Your task to perform on an android device: toggle location history Image 0: 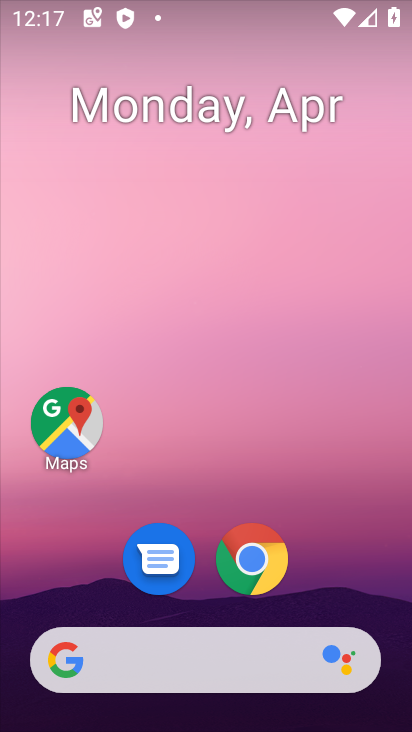
Step 0: drag from (223, 611) to (270, 259)
Your task to perform on an android device: toggle location history Image 1: 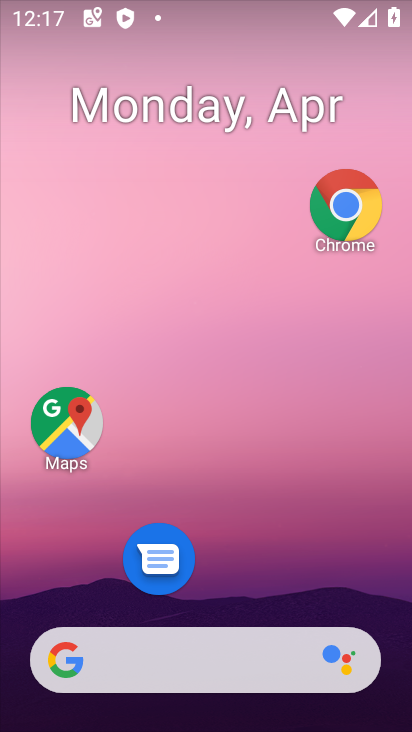
Step 1: drag from (267, 590) to (232, 197)
Your task to perform on an android device: toggle location history Image 2: 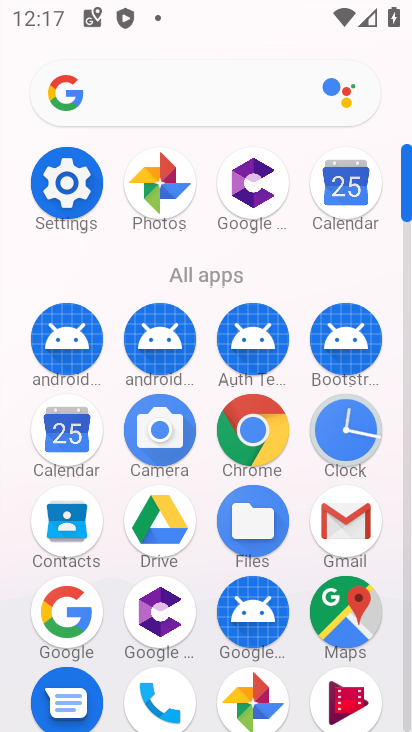
Step 2: click (86, 201)
Your task to perform on an android device: toggle location history Image 3: 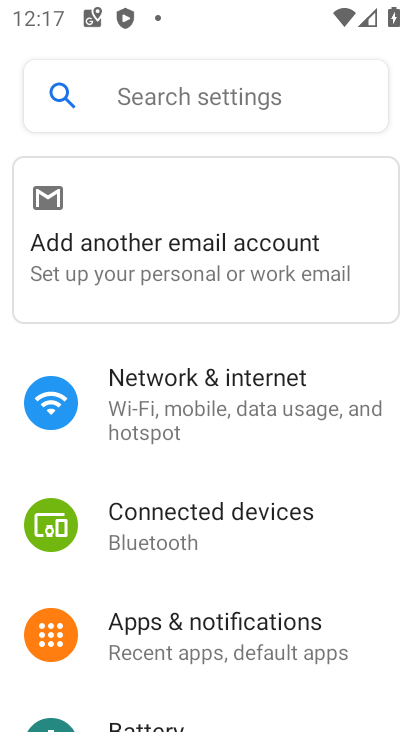
Step 3: drag from (234, 560) to (207, 255)
Your task to perform on an android device: toggle location history Image 4: 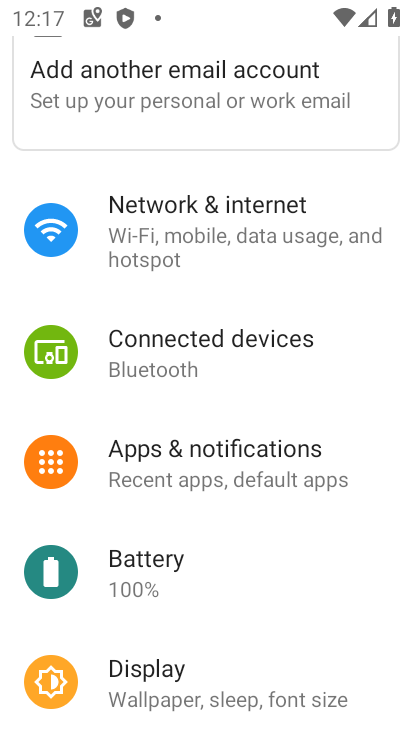
Step 4: drag from (173, 632) to (200, 281)
Your task to perform on an android device: toggle location history Image 5: 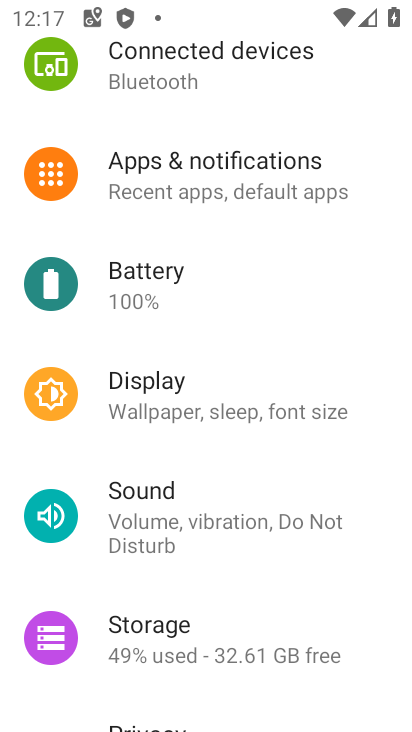
Step 5: drag from (197, 693) to (208, 302)
Your task to perform on an android device: toggle location history Image 6: 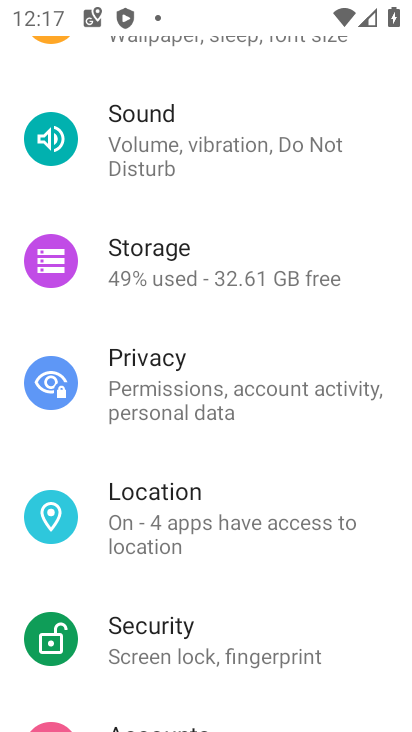
Step 6: click (200, 511)
Your task to perform on an android device: toggle location history Image 7: 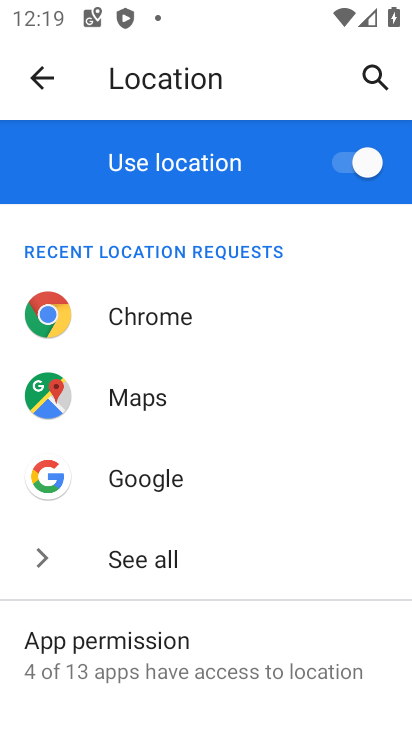
Step 7: drag from (182, 600) to (214, 239)
Your task to perform on an android device: toggle location history Image 8: 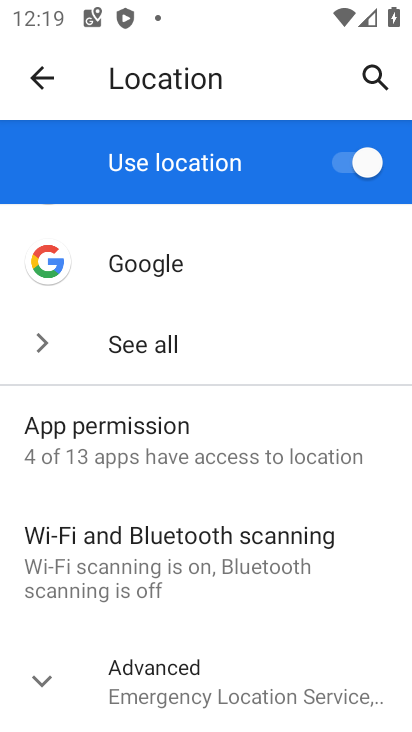
Step 8: click (172, 689)
Your task to perform on an android device: toggle location history Image 9: 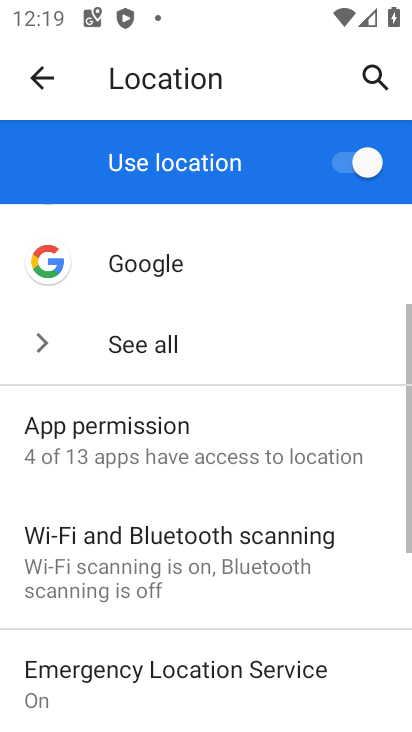
Step 9: drag from (172, 671) to (225, 246)
Your task to perform on an android device: toggle location history Image 10: 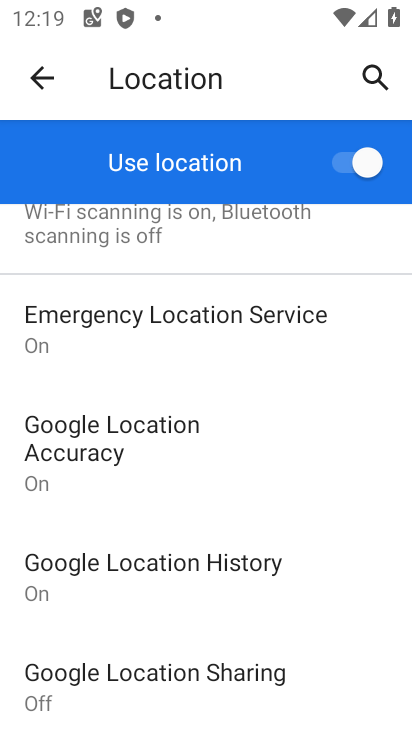
Step 10: click (261, 582)
Your task to perform on an android device: toggle location history Image 11: 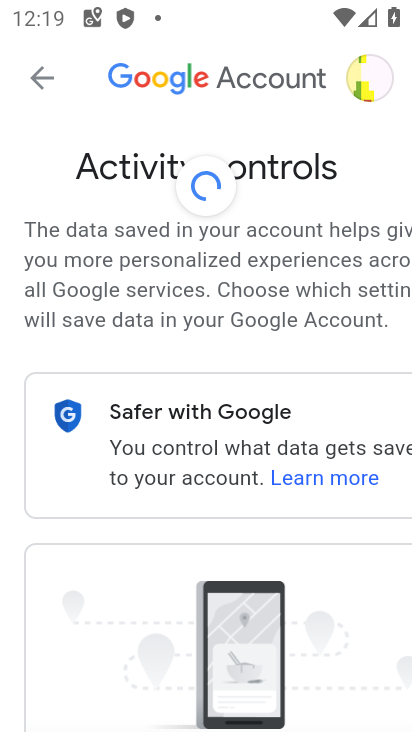
Step 11: drag from (288, 621) to (278, 240)
Your task to perform on an android device: toggle location history Image 12: 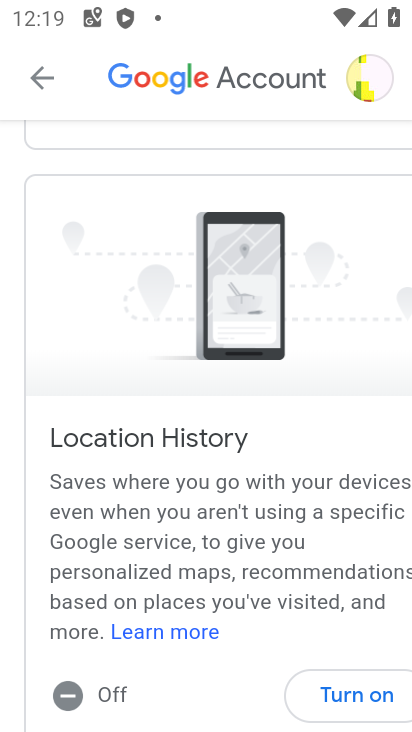
Step 12: click (330, 691)
Your task to perform on an android device: toggle location history Image 13: 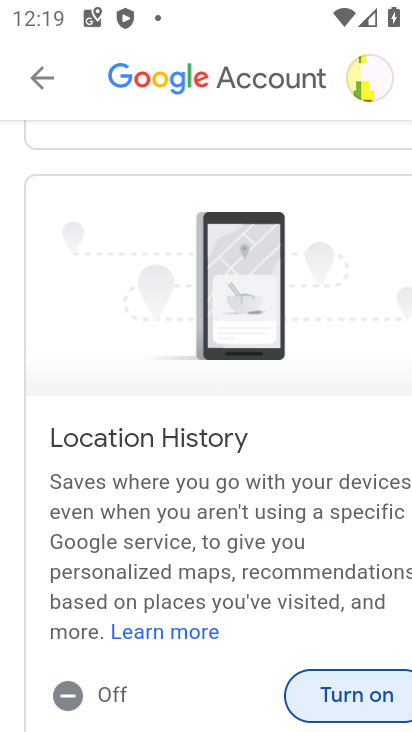
Step 13: click (330, 700)
Your task to perform on an android device: toggle location history Image 14: 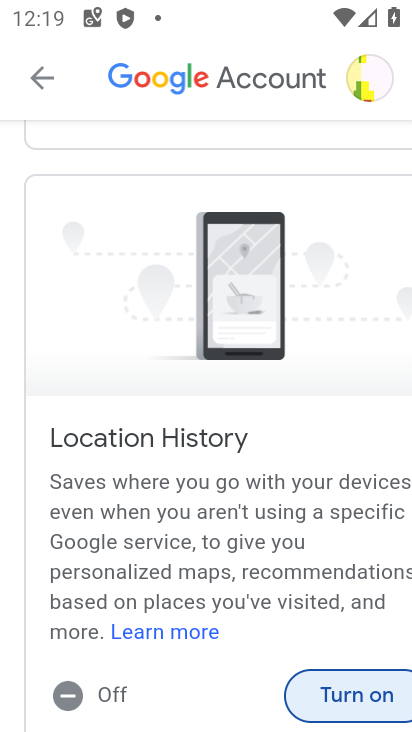
Step 14: drag from (302, 611) to (278, 365)
Your task to perform on an android device: toggle location history Image 15: 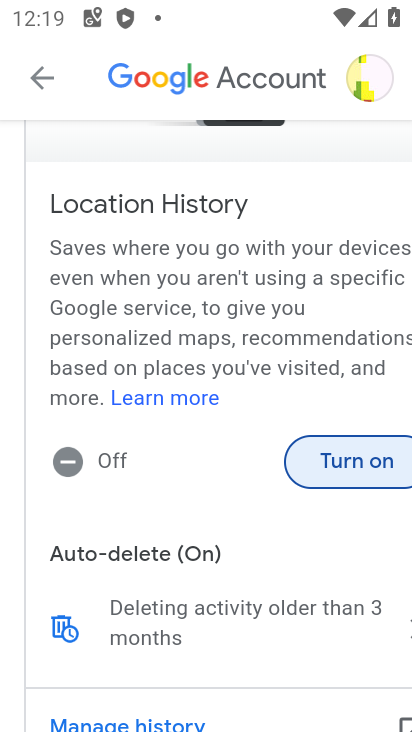
Step 15: click (354, 461)
Your task to perform on an android device: toggle location history Image 16: 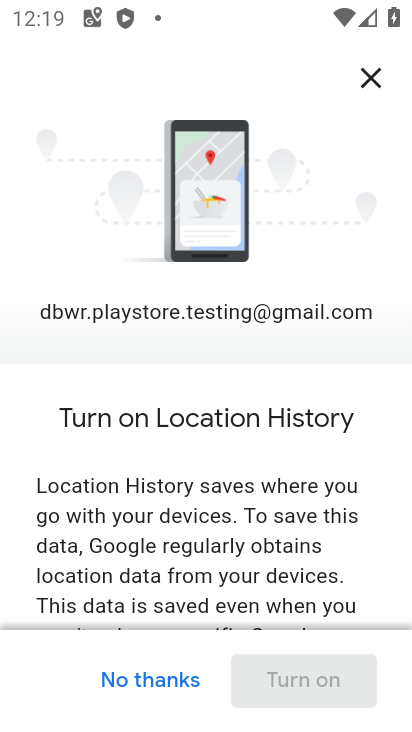
Step 16: drag from (315, 566) to (282, 86)
Your task to perform on an android device: toggle location history Image 17: 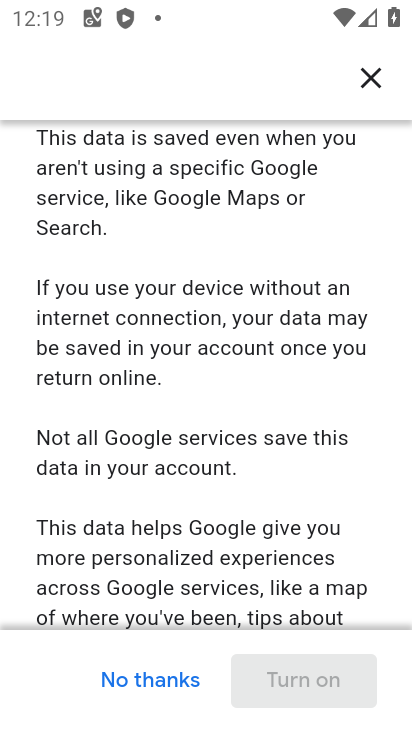
Step 17: drag from (226, 496) to (248, 86)
Your task to perform on an android device: toggle location history Image 18: 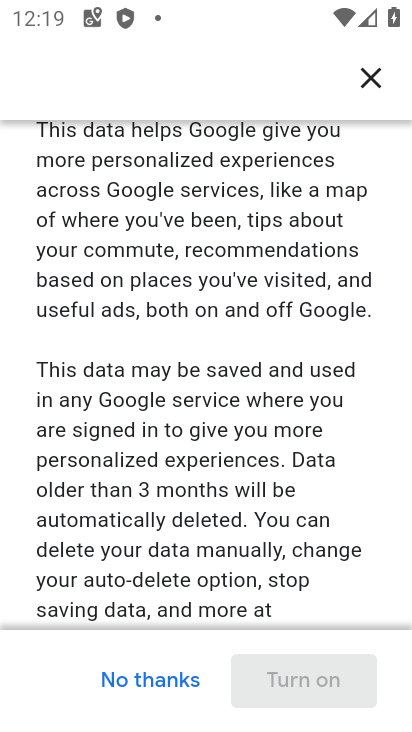
Step 18: drag from (276, 541) to (265, 69)
Your task to perform on an android device: toggle location history Image 19: 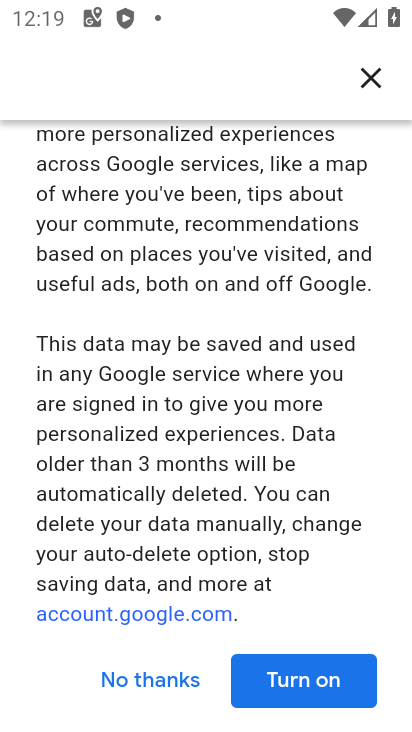
Step 19: click (283, 693)
Your task to perform on an android device: toggle location history Image 20: 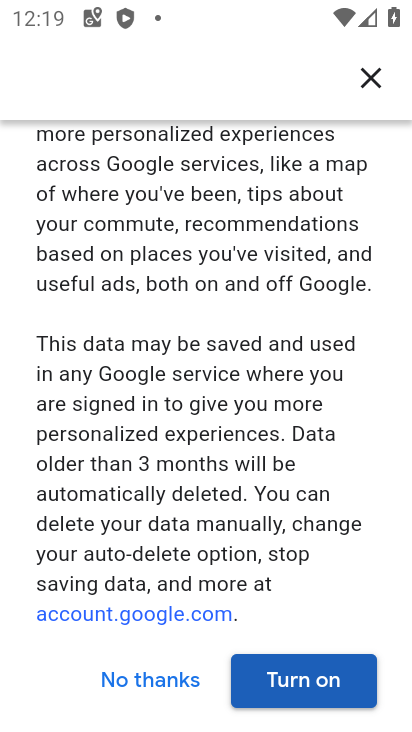
Step 20: click (334, 692)
Your task to perform on an android device: toggle location history Image 21: 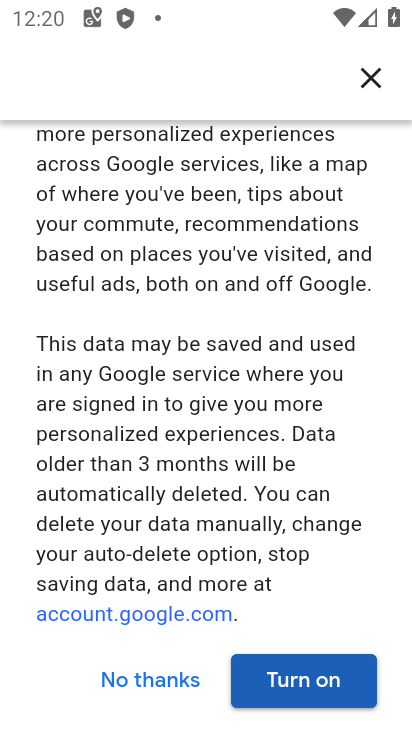
Step 21: click (302, 692)
Your task to perform on an android device: toggle location history Image 22: 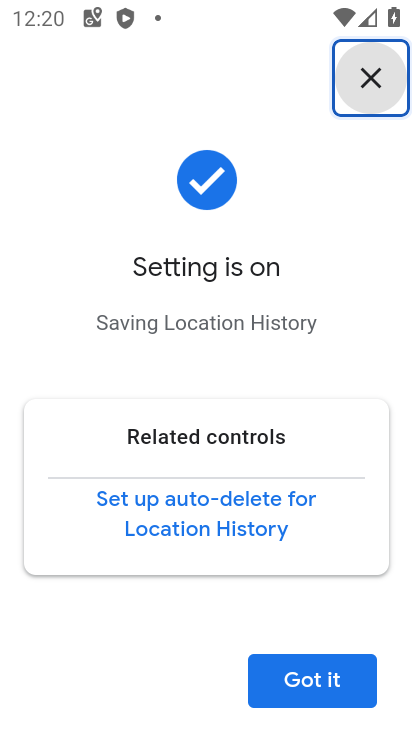
Step 22: click (317, 689)
Your task to perform on an android device: toggle location history Image 23: 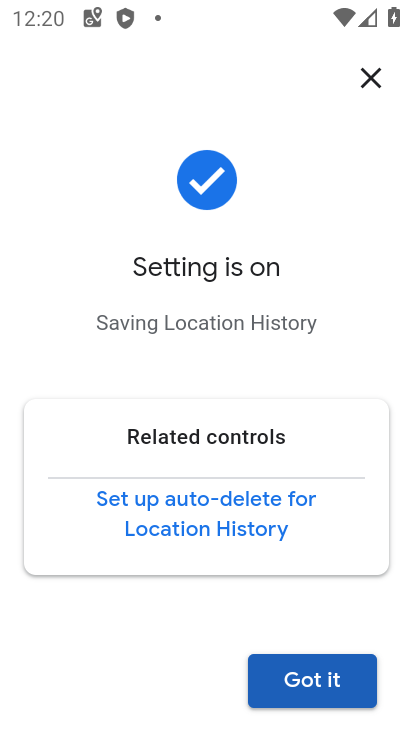
Step 23: click (318, 689)
Your task to perform on an android device: toggle location history Image 24: 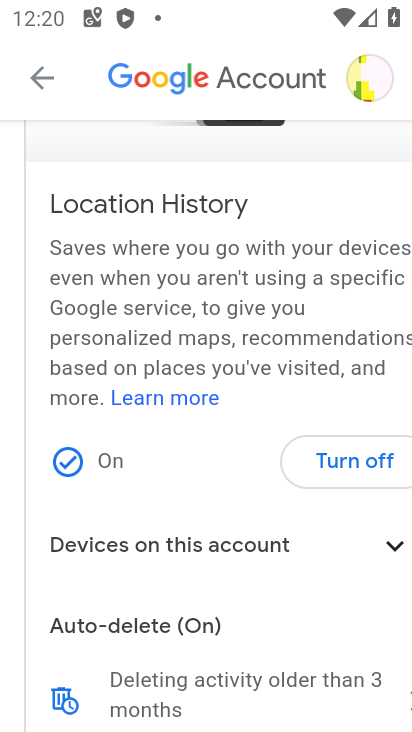
Step 24: task complete